Your task to perform on an android device: change the clock display to show seconds Image 0: 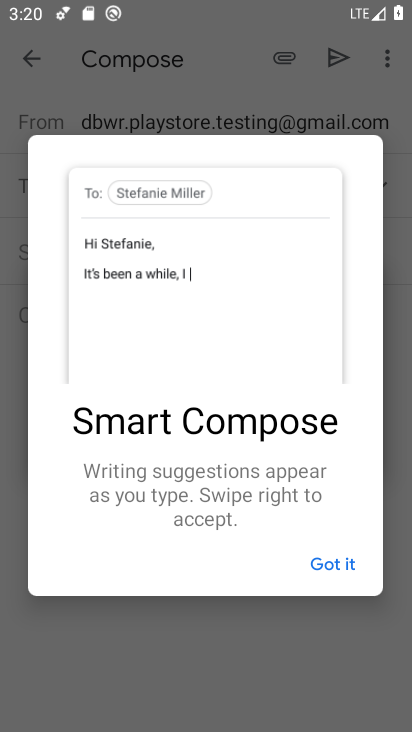
Step 0: press home button
Your task to perform on an android device: change the clock display to show seconds Image 1: 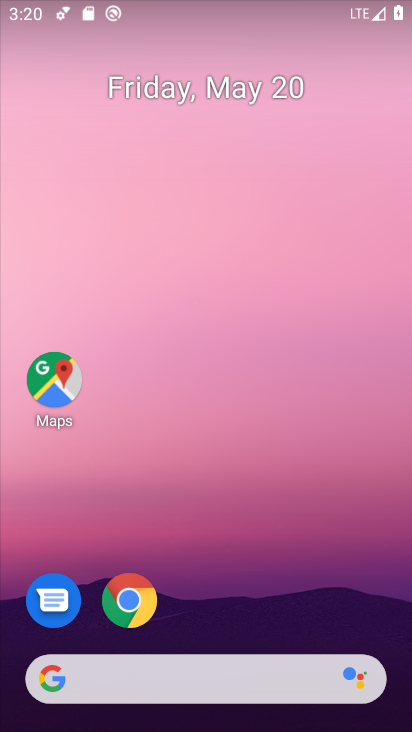
Step 1: drag from (362, 623) to (356, 232)
Your task to perform on an android device: change the clock display to show seconds Image 2: 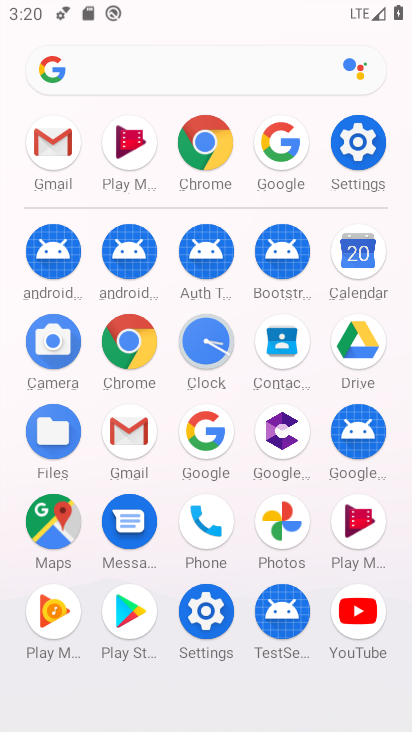
Step 2: click (207, 347)
Your task to perform on an android device: change the clock display to show seconds Image 3: 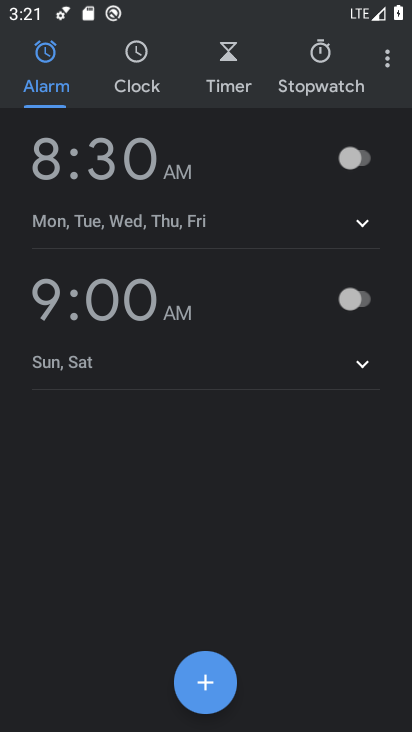
Step 3: click (387, 65)
Your task to perform on an android device: change the clock display to show seconds Image 4: 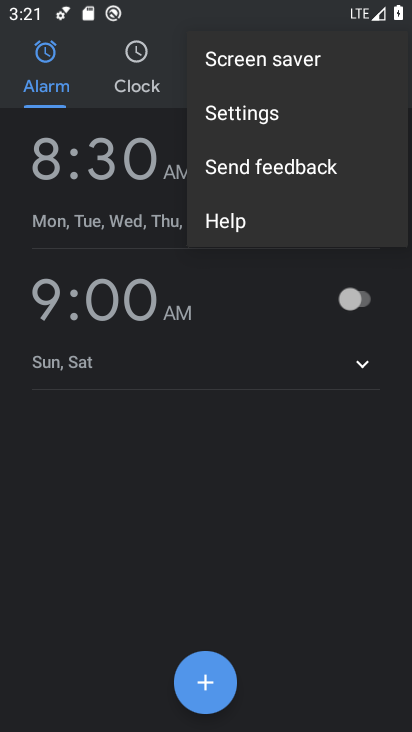
Step 4: click (287, 136)
Your task to perform on an android device: change the clock display to show seconds Image 5: 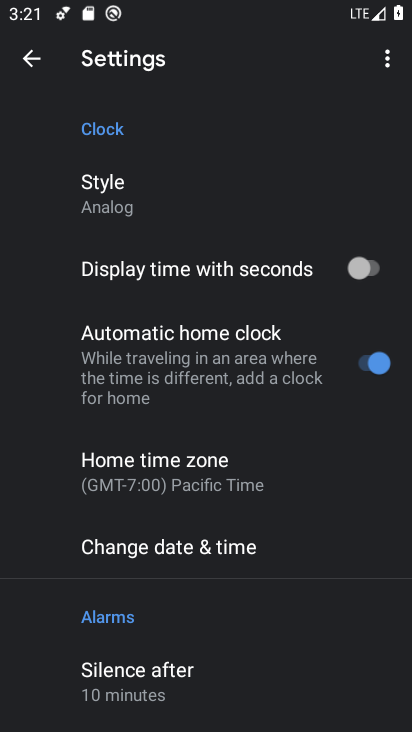
Step 5: drag from (305, 562) to (307, 385)
Your task to perform on an android device: change the clock display to show seconds Image 6: 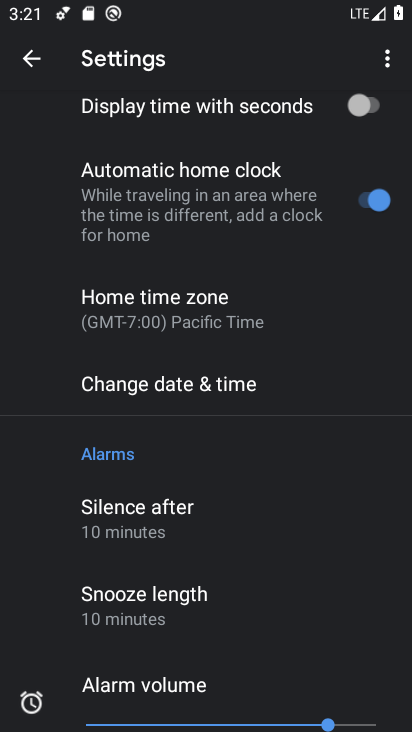
Step 6: drag from (315, 598) to (321, 439)
Your task to perform on an android device: change the clock display to show seconds Image 7: 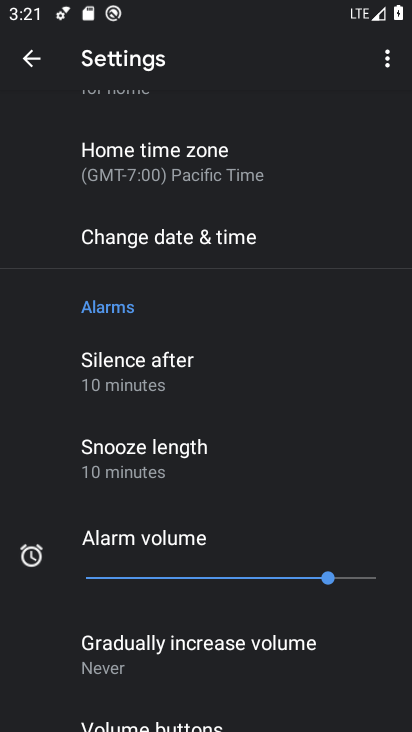
Step 7: drag from (306, 675) to (310, 535)
Your task to perform on an android device: change the clock display to show seconds Image 8: 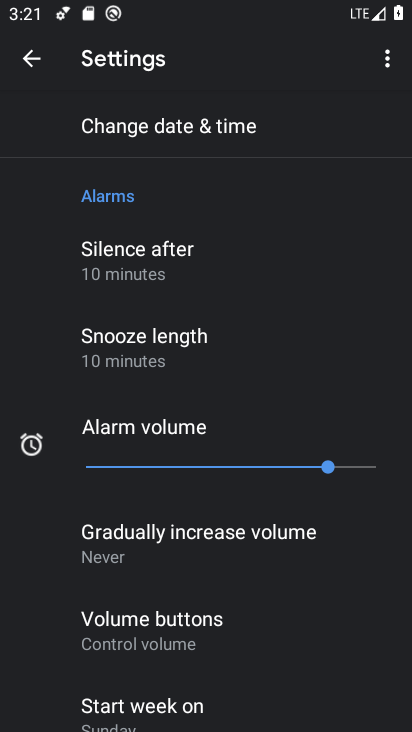
Step 8: drag from (303, 674) to (311, 561)
Your task to perform on an android device: change the clock display to show seconds Image 9: 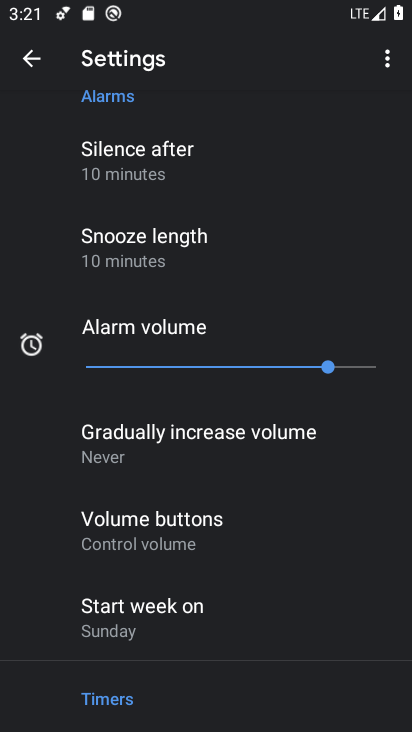
Step 9: drag from (327, 678) to (326, 553)
Your task to perform on an android device: change the clock display to show seconds Image 10: 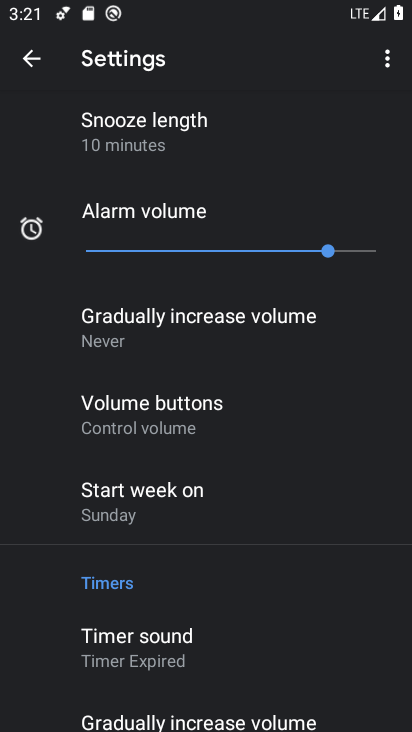
Step 10: drag from (341, 684) to (346, 526)
Your task to perform on an android device: change the clock display to show seconds Image 11: 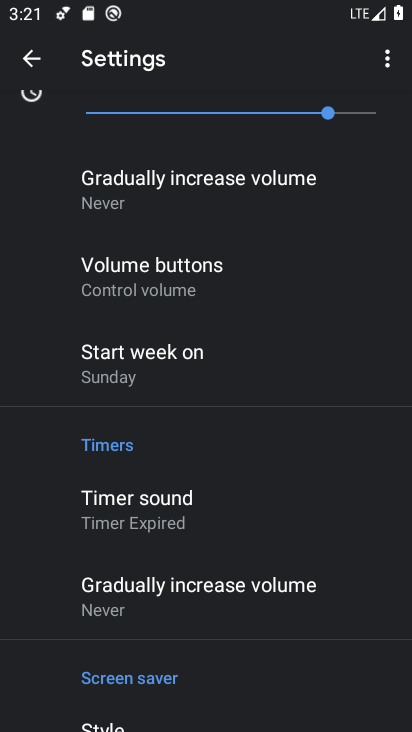
Step 11: drag from (366, 387) to (360, 596)
Your task to perform on an android device: change the clock display to show seconds Image 12: 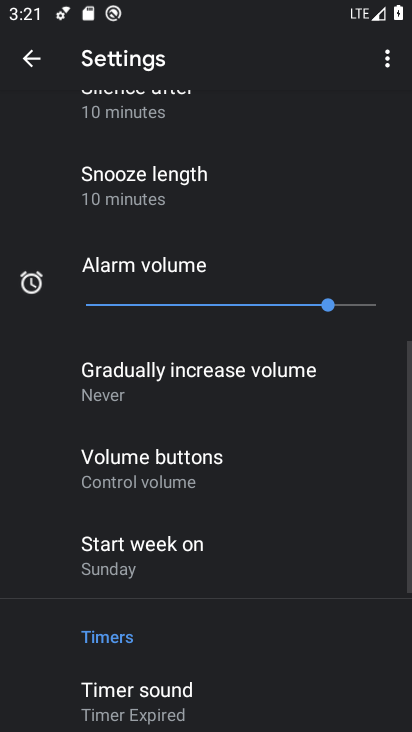
Step 12: drag from (360, 422) to (353, 557)
Your task to perform on an android device: change the clock display to show seconds Image 13: 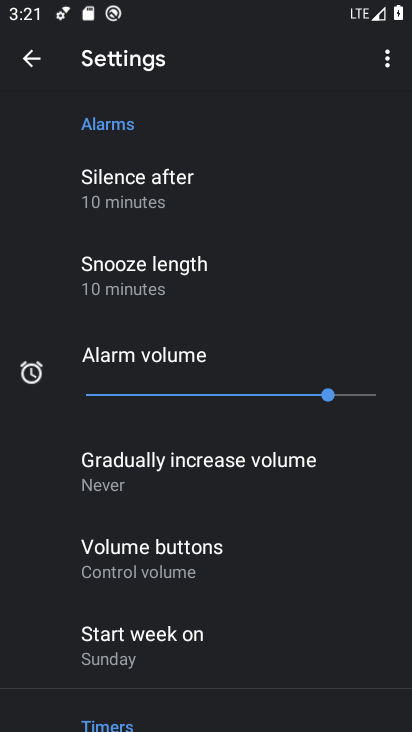
Step 13: drag from (362, 344) to (356, 499)
Your task to perform on an android device: change the clock display to show seconds Image 14: 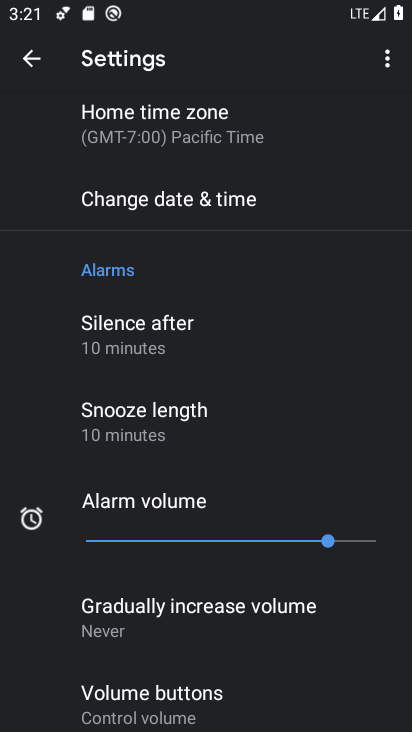
Step 14: drag from (362, 295) to (347, 491)
Your task to perform on an android device: change the clock display to show seconds Image 15: 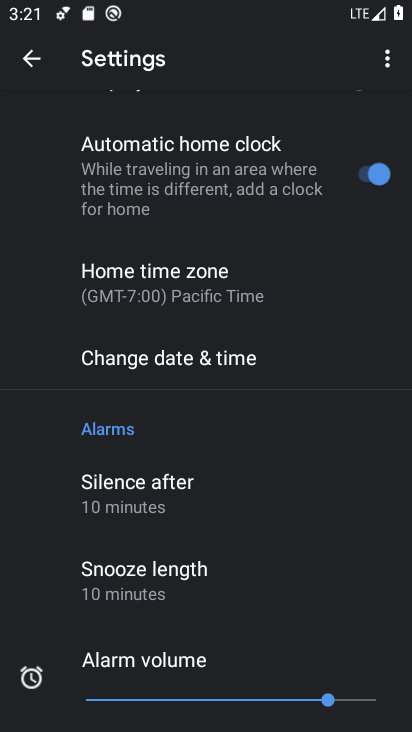
Step 15: drag from (338, 312) to (336, 505)
Your task to perform on an android device: change the clock display to show seconds Image 16: 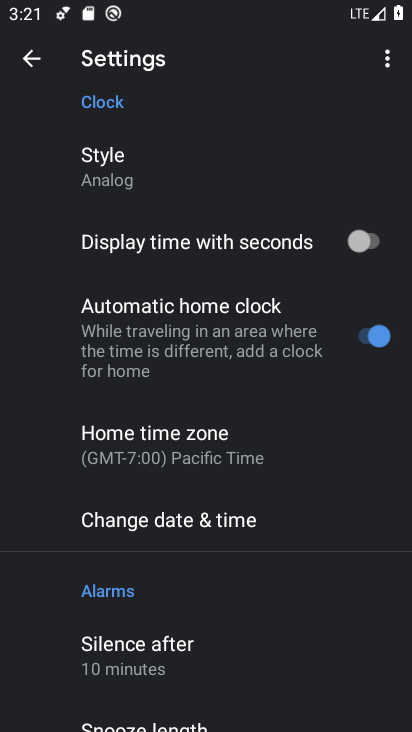
Step 16: drag from (328, 221) to (317, 505)
Your task to perform on an android device: change the clock display to show seconds Image 17: 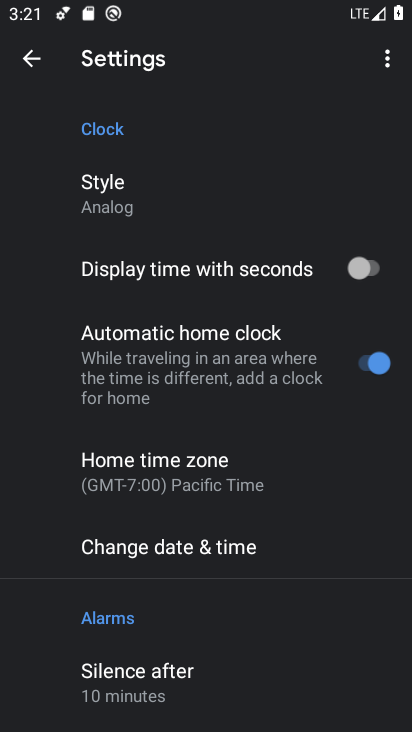
Step 17: click (357, 273)
Your task to perform on an android device: change the clock display to show seconds Image 18: 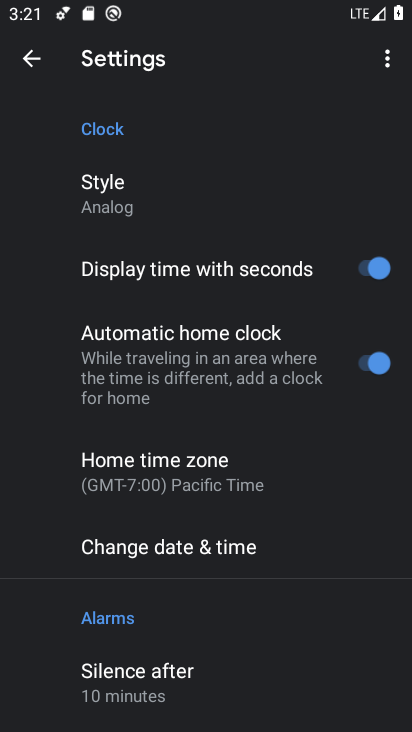
Step 18: task complete